Your task to perform on an android device: What's on my calendar today? Image 0: 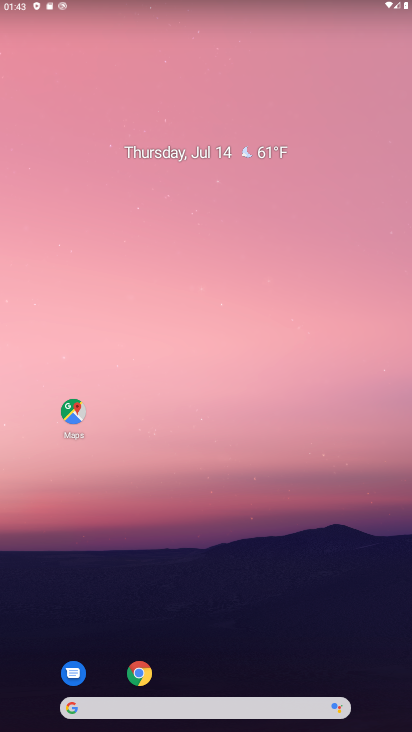
Step 0: drag from (294, 649) to (218, 142)
Your task to perform on an android device: What's on my calendar today? Image 1: 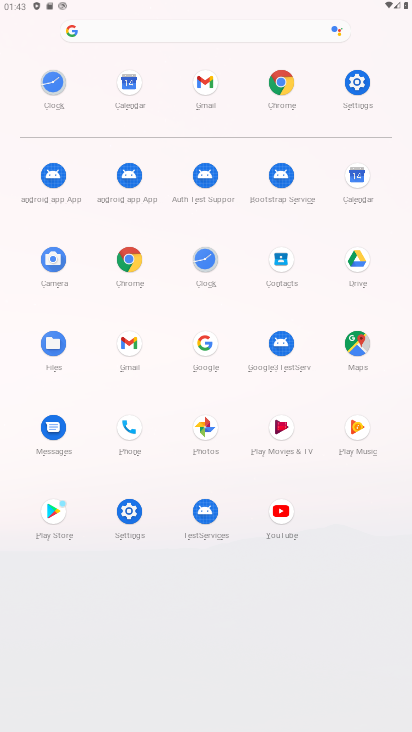
Step 1: click (141, 102)
Your task to perform on an android device: What's on my calendar today? Image 2: 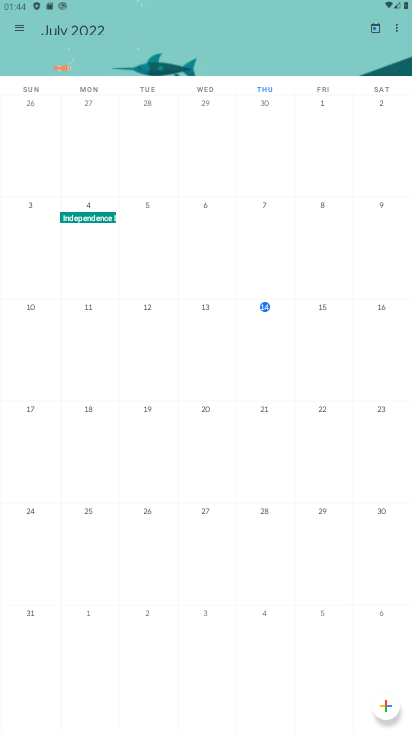
Step 2: task complete